Your task to perform on an android device: turn on javascript in the chrome app Image 0: 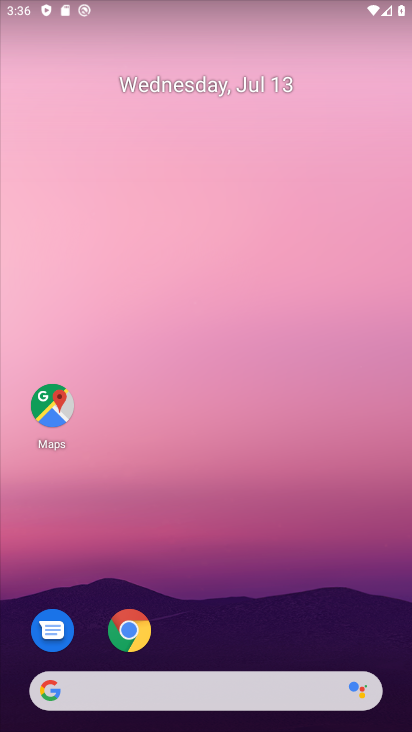
Step 0: click (119, 622)
Your task to perform on an android device: turn on javascript in the chrome app Image 1: 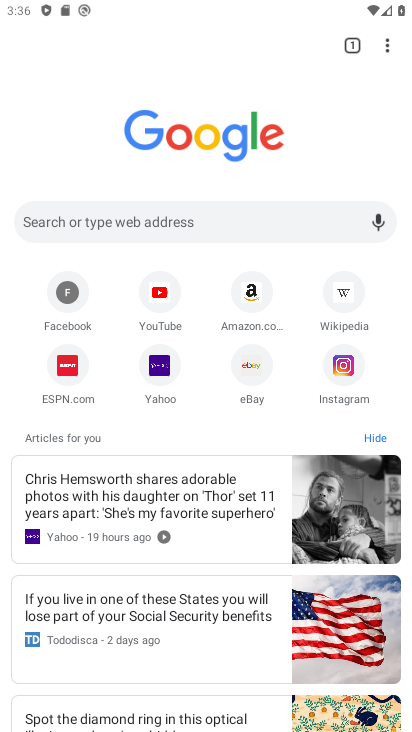
Step 1: click (388, 43)
Your task to perform on an android device: turn on javascript in the chrome app Image 2: 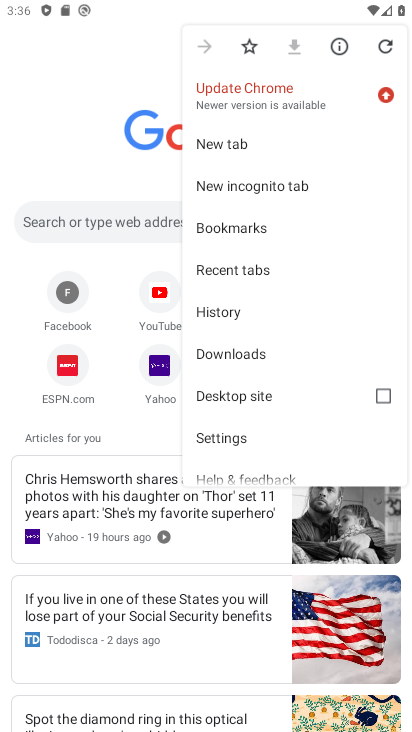
Step 2: click (231, 435)
Your task to perform on an android device: turn on javascript in the chrome app Image 3: 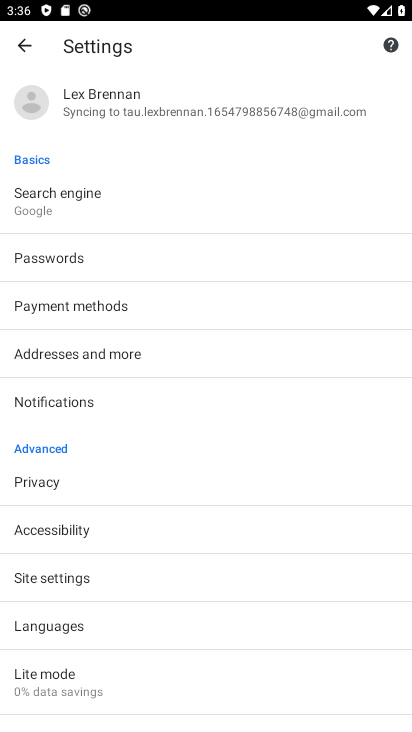
Step 3: click (51, 575)
Your task to perform on an android device: turn on javascript in the chrome app Image 4: 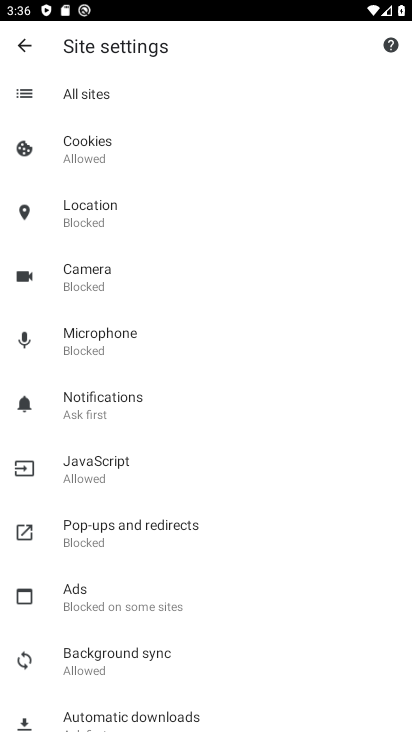
Step 4: click (95, 460)
Your task to perform on an android device: turn on javascript in the chrome app Image 5: 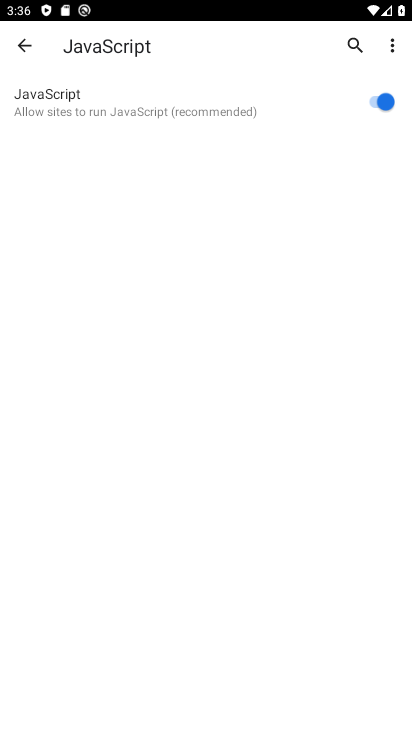
Step 5: task complete